Your task to perform on an android device: Search for Italian restaurants on Maps Image 0: 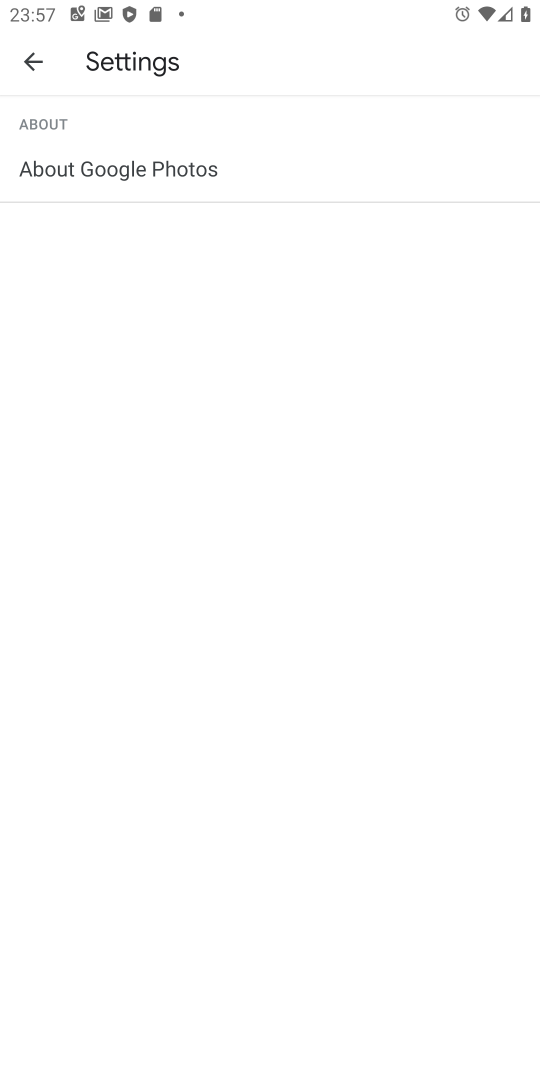
Step 0: press home button
Your task to perform on an android device: Search for Italian restaurants on Maps Image 1: 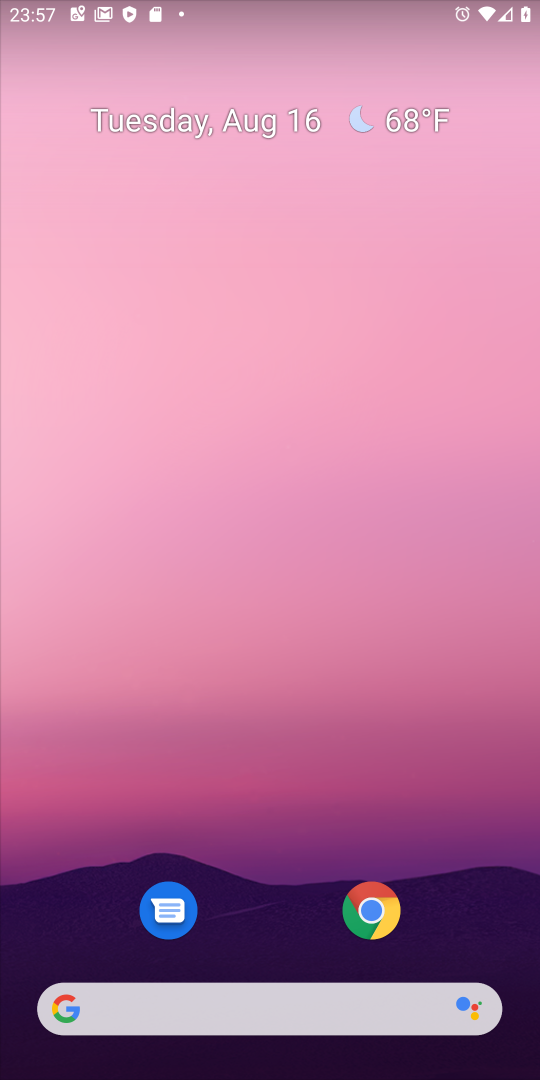
Step 1: drag from (265, 890) to (327, 134)
Your task to perform on an android device: Search for Italian restaurants on Maps Image 2: 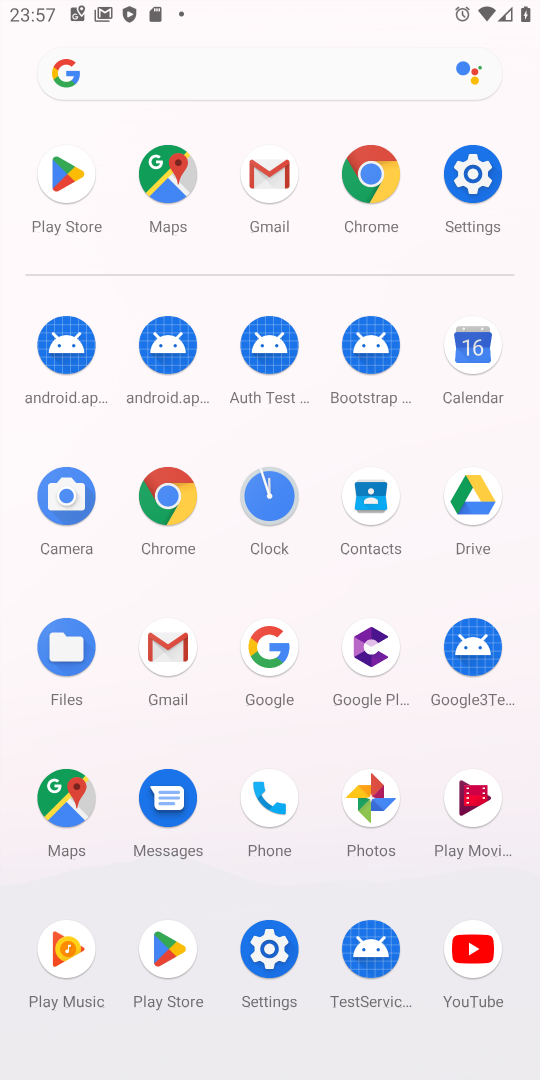
Step 2: click (63, 801)
Your task to perform on an android device: Search for Italian restaurants on Maps Image 3: 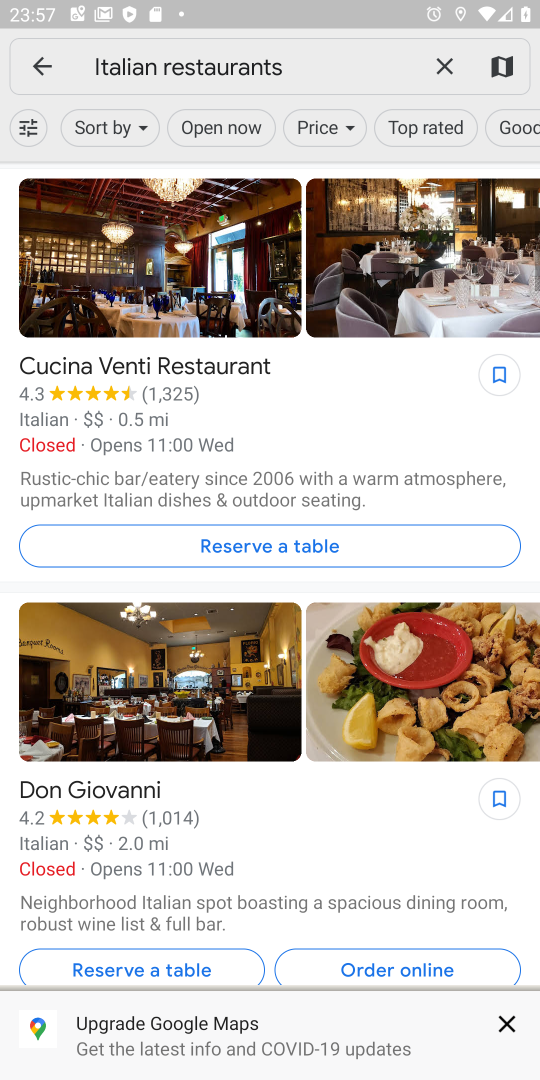
Step 3: task complete